Your task to perform on an android device: toggle wifi Image 0: 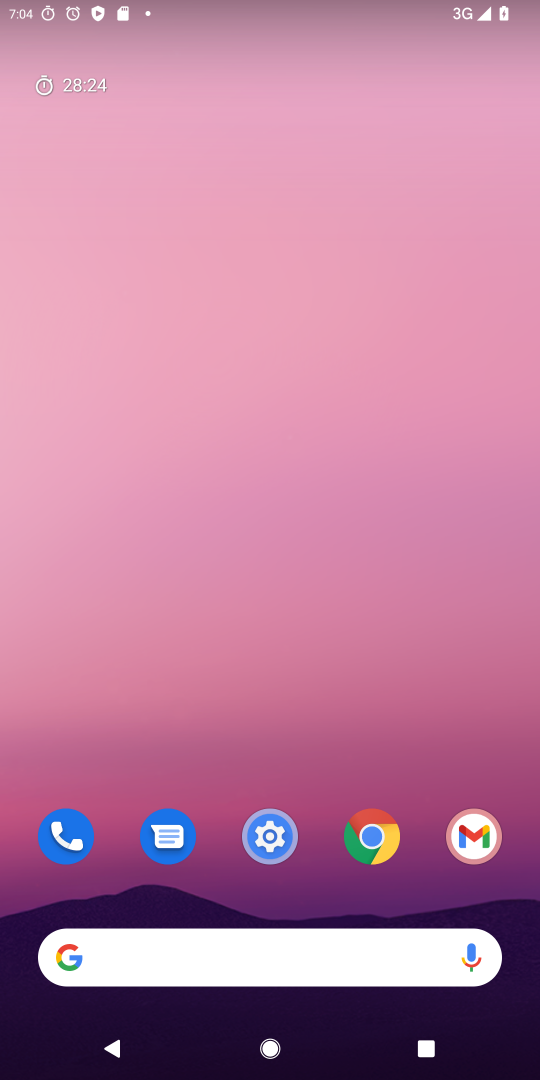
Step 0: drag from (311, 619) to (239, 23)
Your task to perform on an android device: toggle wifi Image 1: 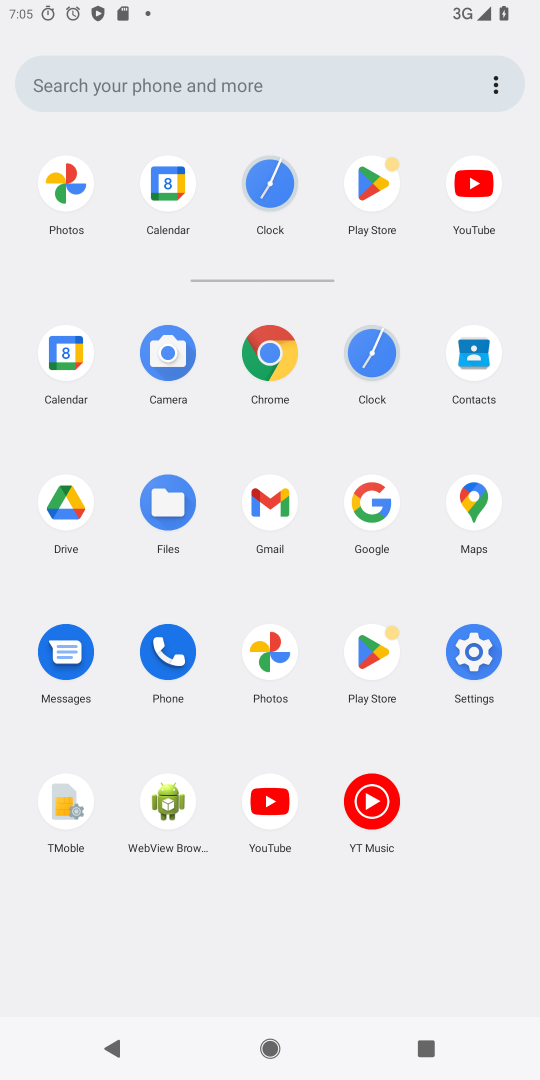
Step 1: click (491, 657)
Your task to perform on an android device: toggle wifi Image 2: 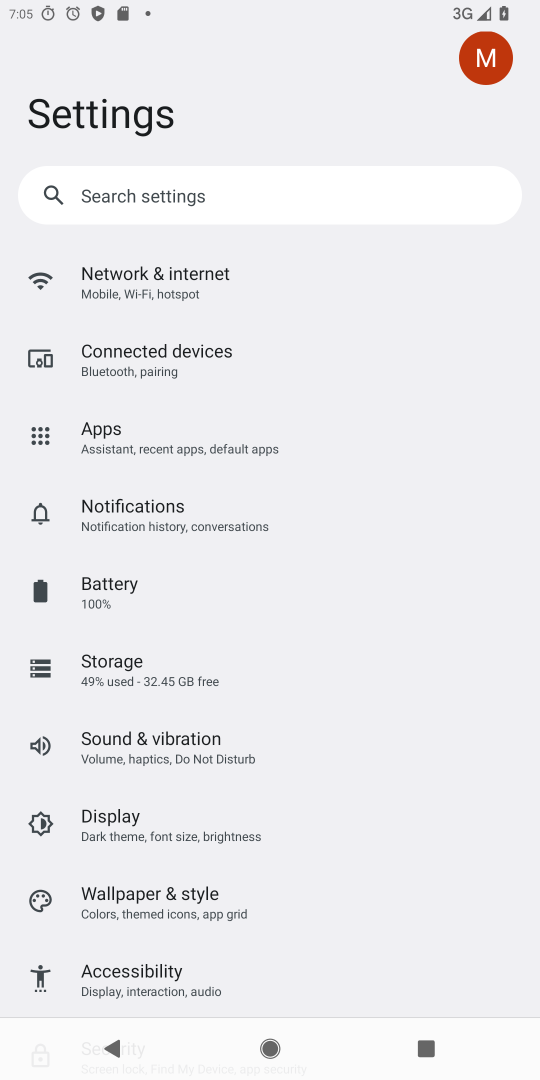
Step 2: click (142, 261)
Your task to perform on an android device: toggle wifi Image 3: 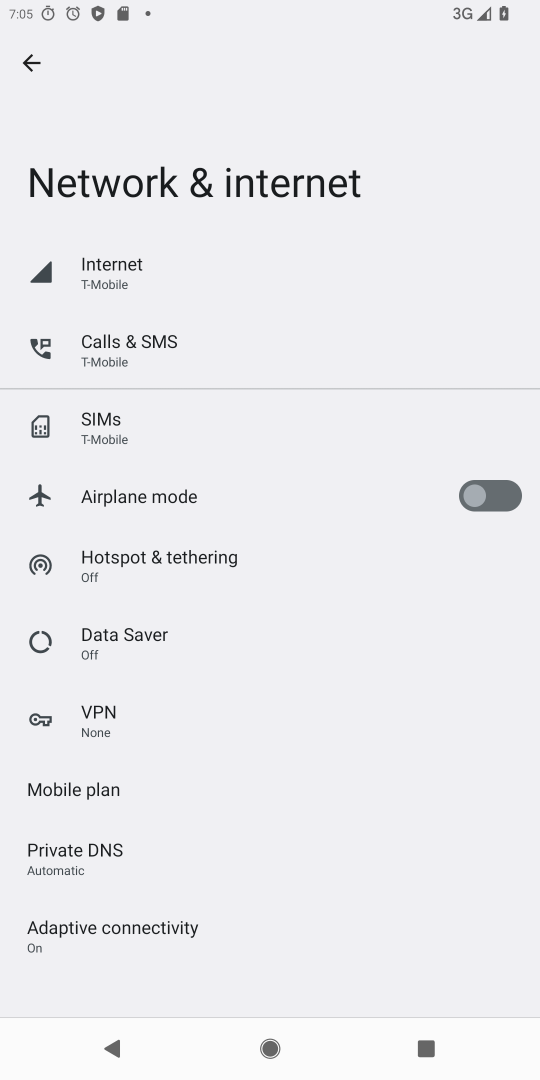
Step 3: click (162, 271)
Your task to perform on an android device: toggle wifi Image 4: 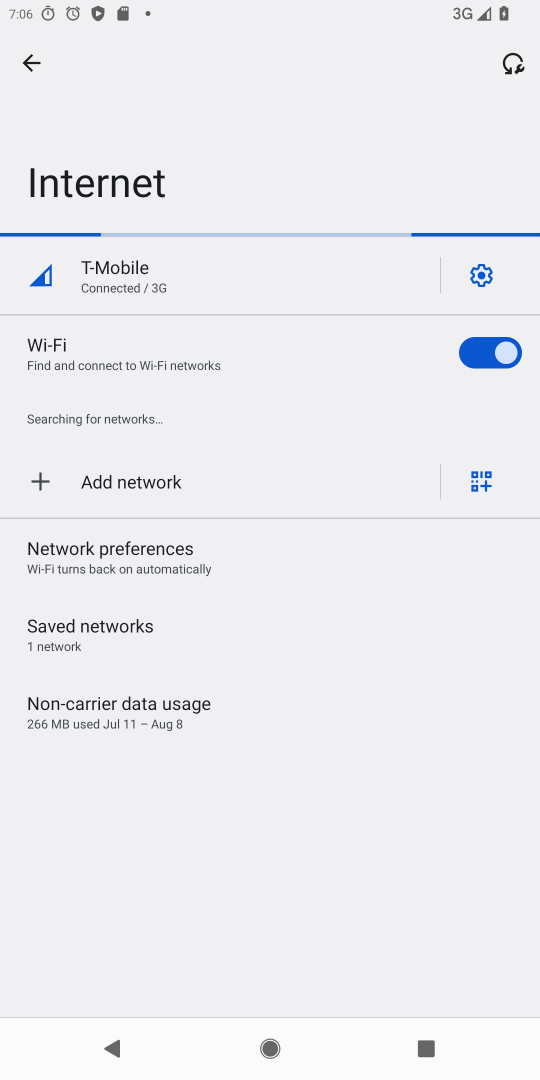
Step 4: click (504, 359)
Your task to perform on an android device: toggle wifi Image 5: 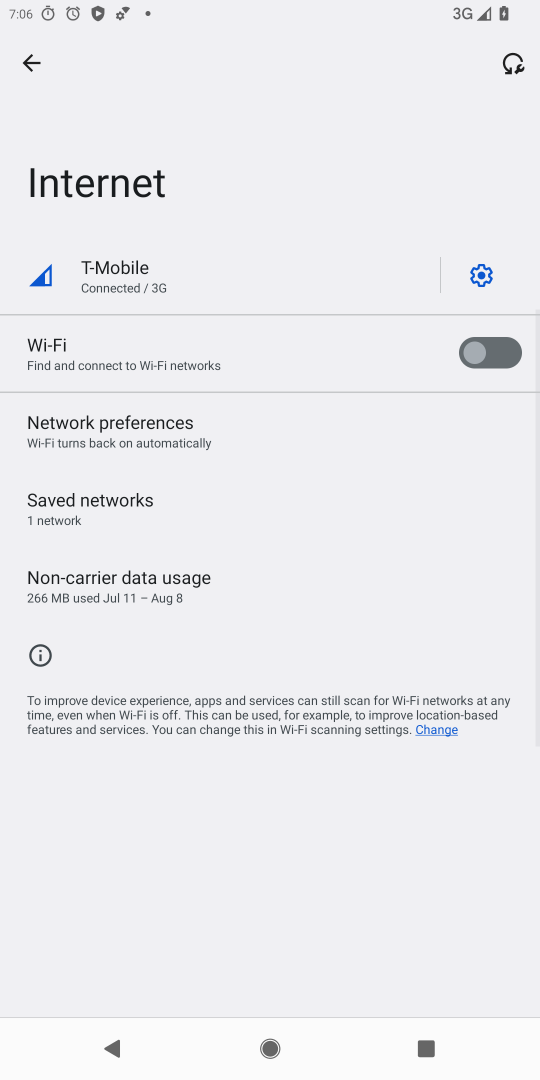
Step 5: task complete